Your task to perform on an android device: add a contact in the contacts app Image 0: 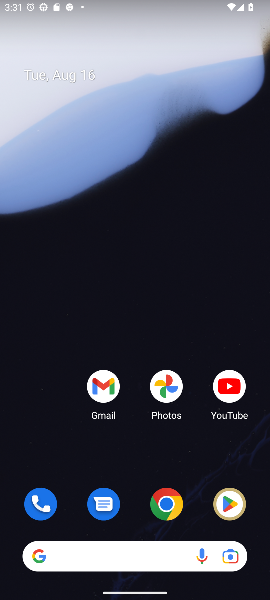
Step 0: drag from (134, 451) to (125, 64)
Your task to perform on an android device: add a contact in the contacts app Image 1: 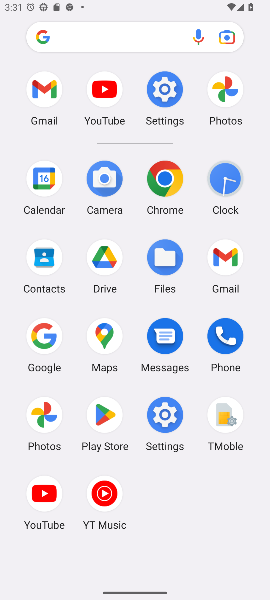
Step 1: click (39, 263)
Your task to perform on an android device: add a contact in the contacts app Image 2: 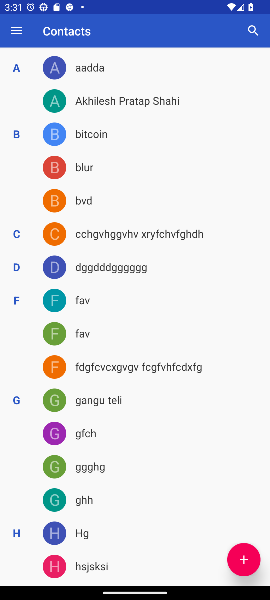
Step 2: click (243, 553)
Your task to perform on an android device: add a contact in the contacts app Image 3: 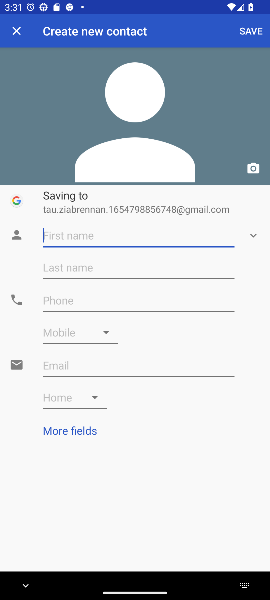
Step 3: type "nnnn"
Your task to perform on an android device: add a contact in the contacts app Image 4: 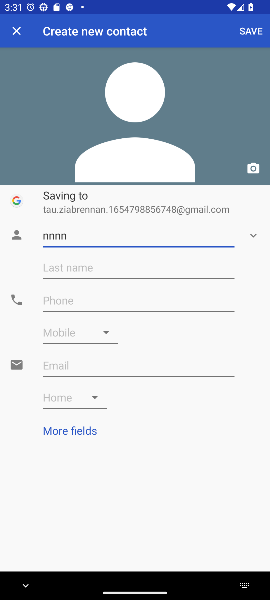
Step 4: click (92, 304)
Your task to perform on an android device: add a contact in the contacts app Image 5: 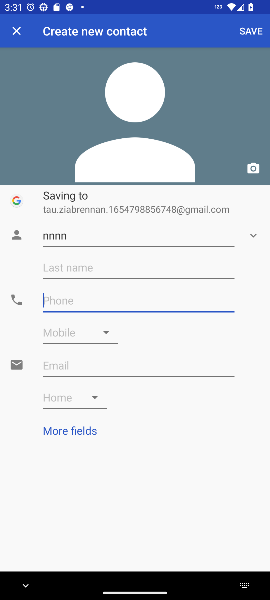
Step 5: type "99"
Your task to perform on an android device: add a contact in the contacts app Image 6: 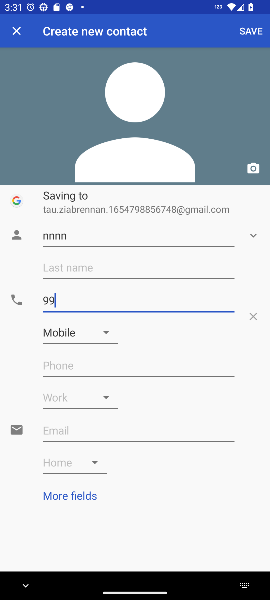
Step 6: click (252, 27)
Your task to perform on an android device: add a contact in the contacts app Image 7: 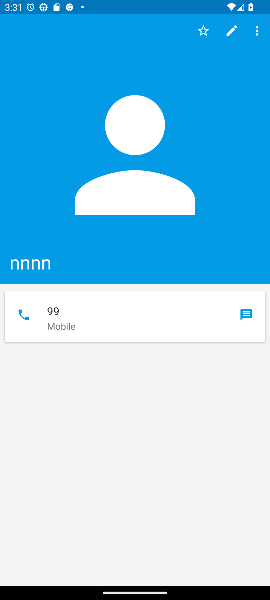
Step 7: task complete